Your task to perform on an android device: Open display settings Image 0: 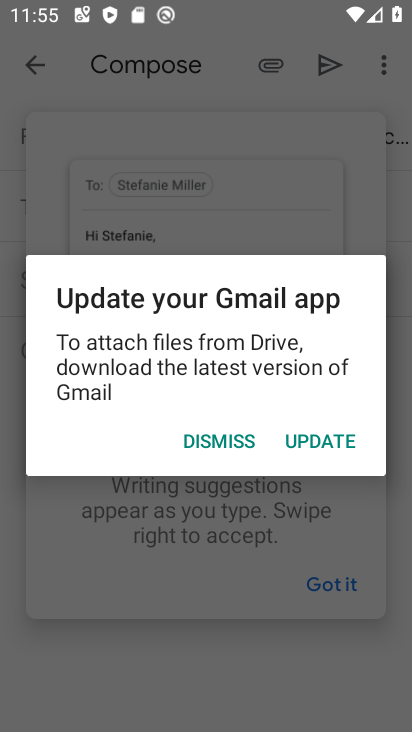
Step 0: press home button
Your task to perform on an android device: Open display settings Image 1: 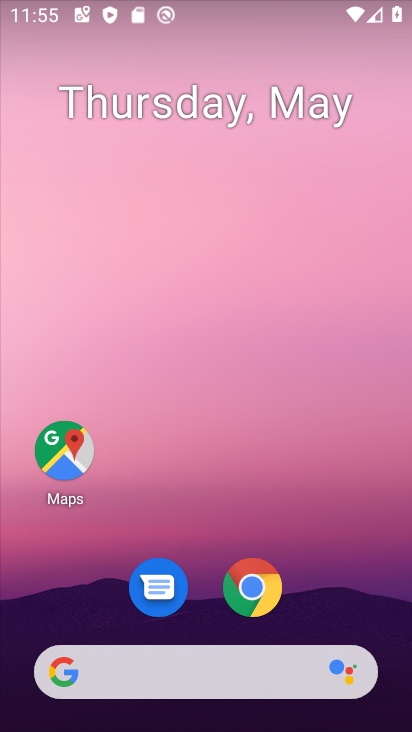
Step 1: drag from (139, 730) to (145, 90)
Your task to perform on an android device: Open display settings Image 2: 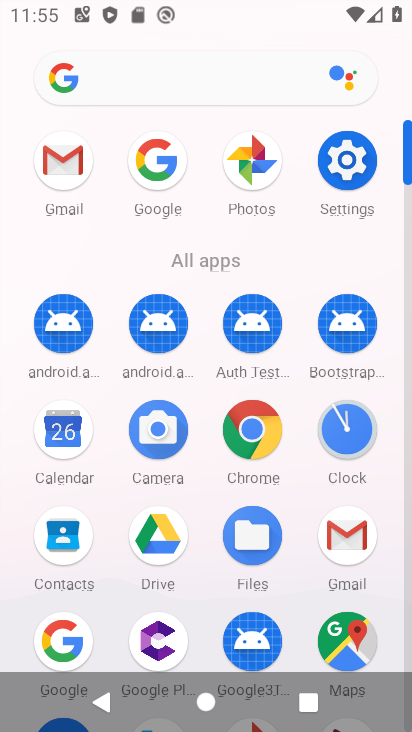
Step 2: click (345, 164)
Your task to perform on an android device: Open display settings Image 3: 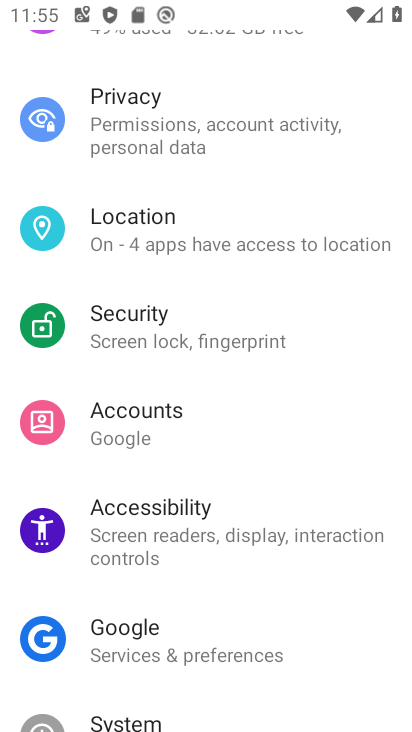
Step 3: drag from (265, 93) to (273, 677)
Your task to perform on an android device: Open display settings Image 4: 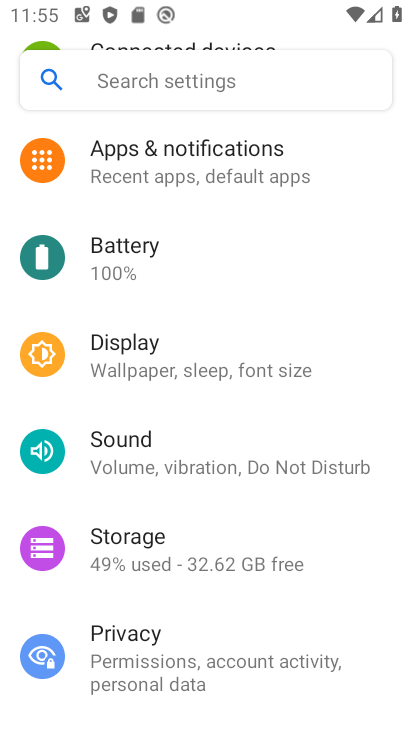
Step 4: click (143, 364)
Your task to perform on an android device: Open display settings Image 5: 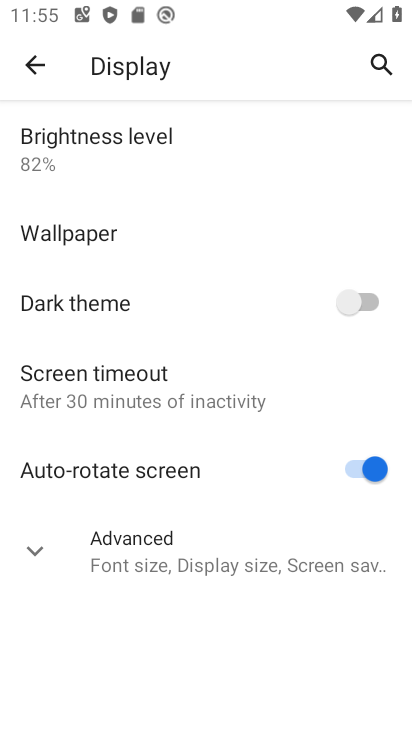
Step 5: task complete